Your task to perform on an android device: Is it going to rain this weekend? Image 0: 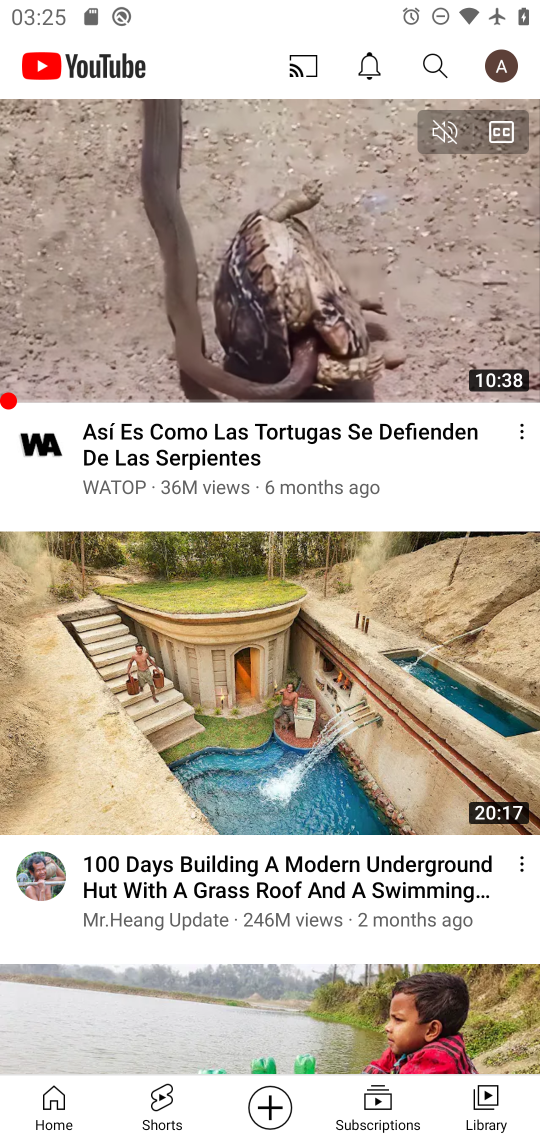
Step 0: press home button
Your task to perform on an android device: Is it going to rain this weekend? Image 1: 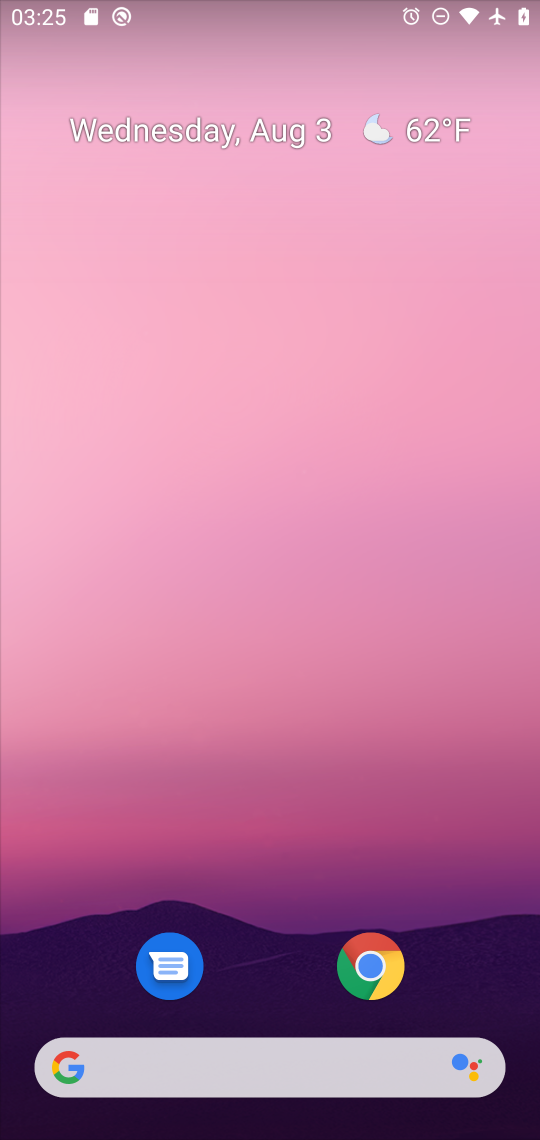
Step 1: drag from (293, 944) to (293, 424)
Your task to perform on an android device: Is it going to rain this weekend? Image 2: 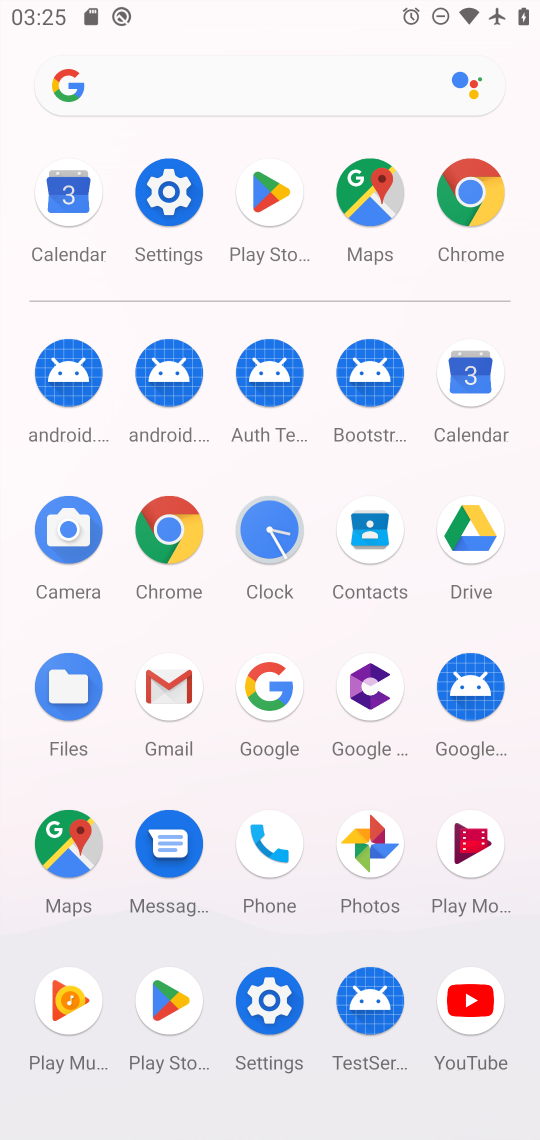
Step 2: click (289, 678)
Your task to perform on an android device: Is it going to rain this weekend? Image 3: 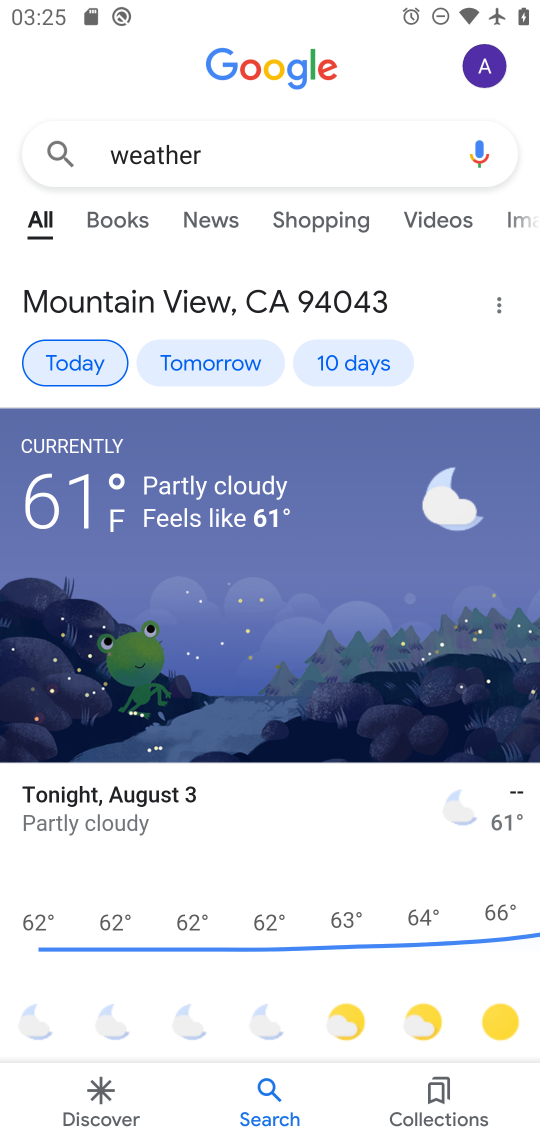
Step 3: click (287, 147)
Your task to perform on an android device: Is it going to rain this weekend? Image 4: 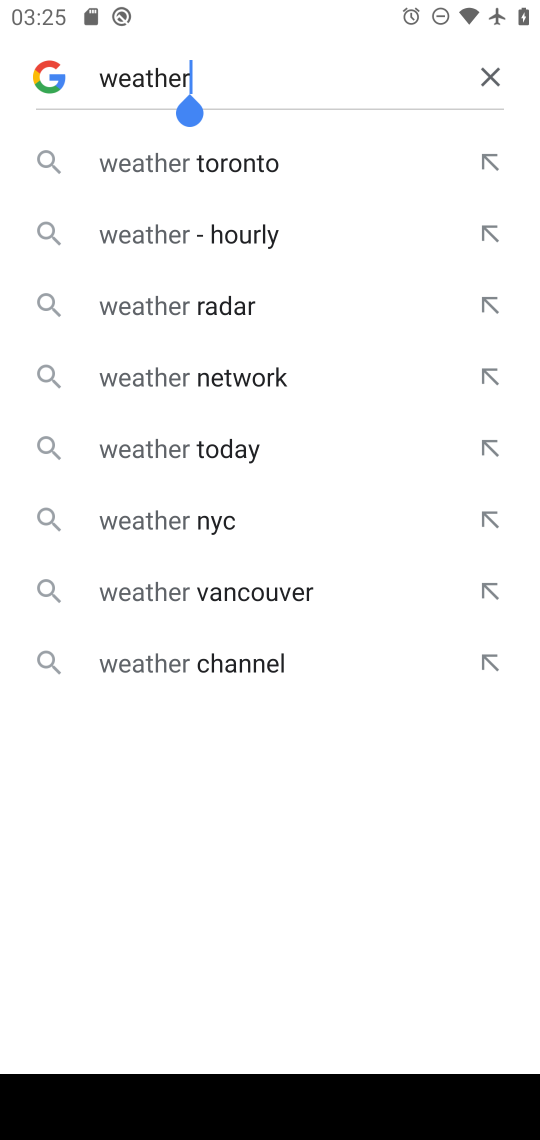
Step 4: click (494, 80)
Your task to perform on an android device: Is it going to rain this weekend? Image 5: 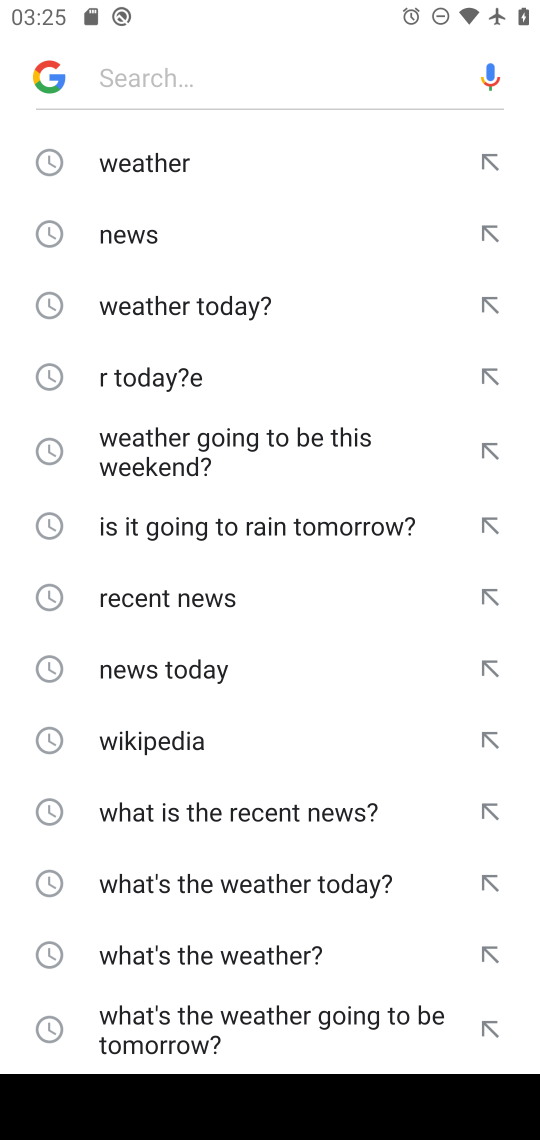
Step 5: click (180, 174)
Your task to perform on an android device: Is it going to rain this weekend? Image 6: 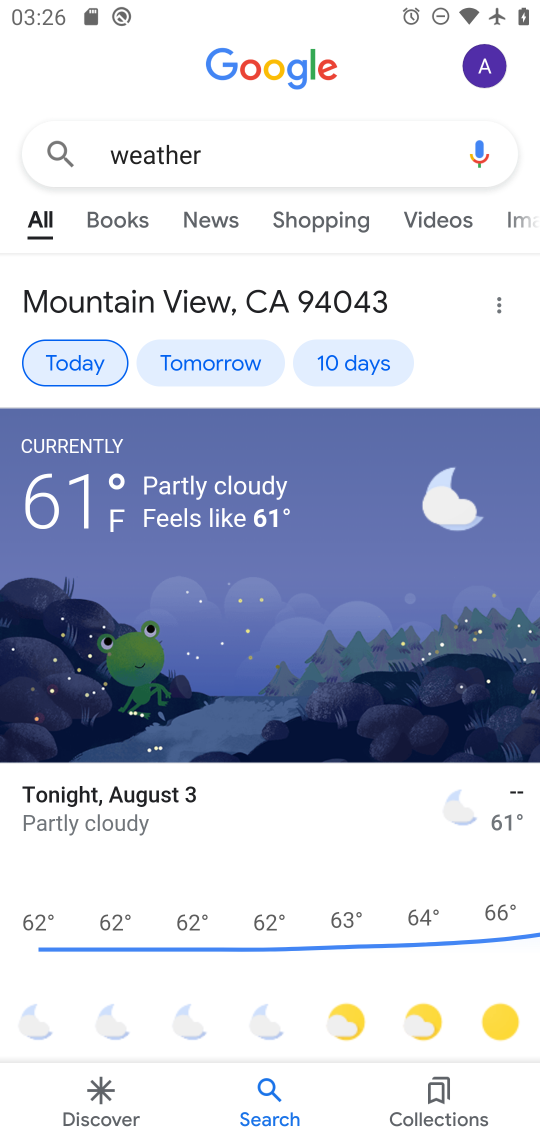
Step 6: click (307, 360)
Your task to perform on an android device: Is it going to rain this weekend? Image 7: 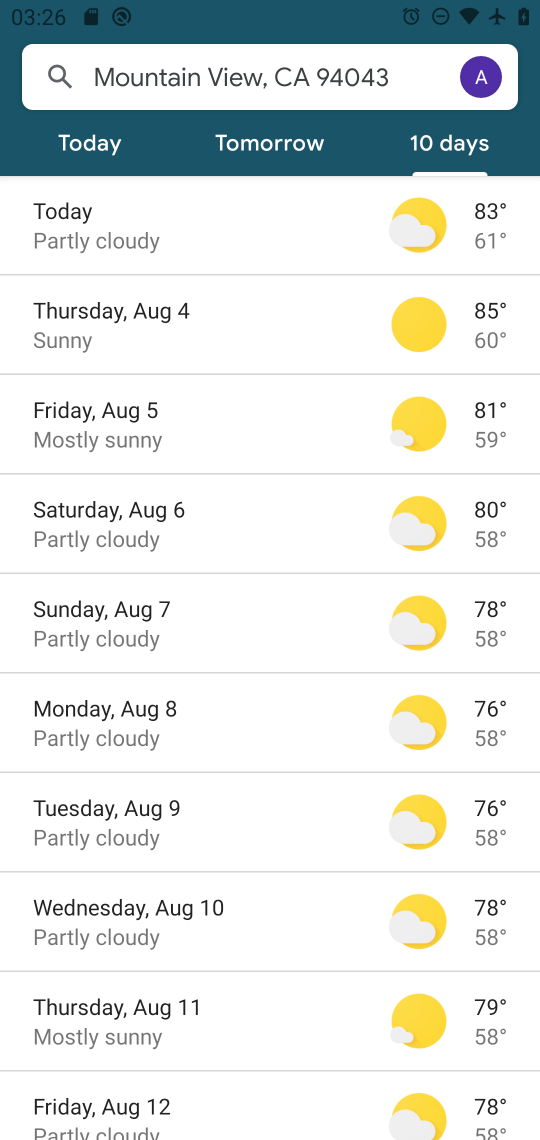
Step 7: task complete